Your task to perform on an android device: Open battery settings Image 0: 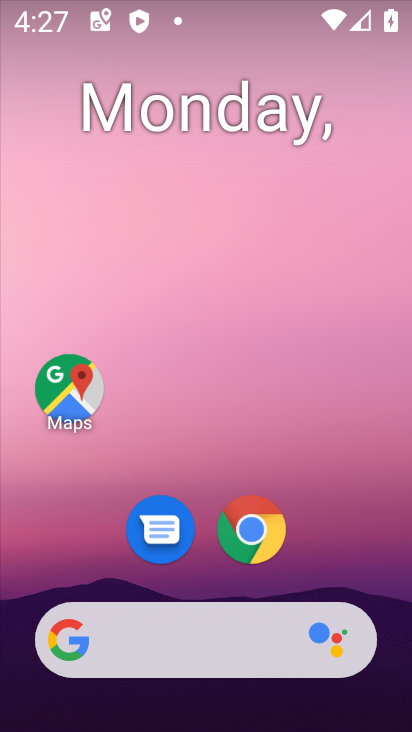
Step 0: drag from (213, 724) to (216, 208)
Your task to perform on an android device: Open battery settings Image 1: 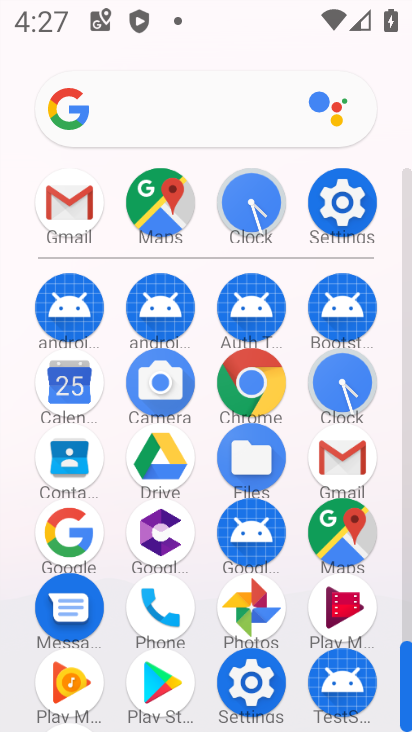
Step 1: click (345, 199)
Your task to perform on an android device: Open battery settings Image 2: 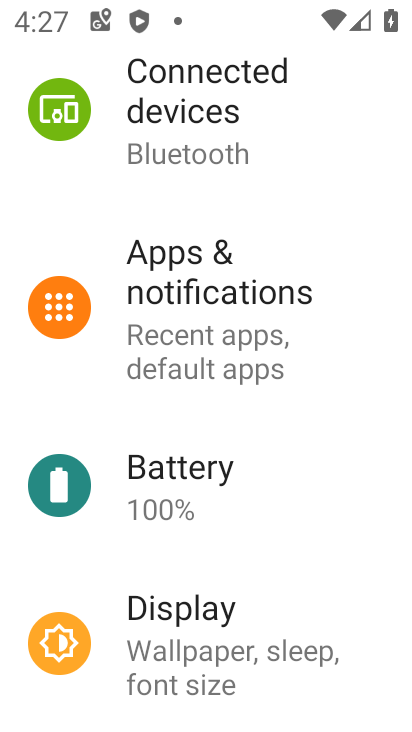
Step 2: click (180, 477)
Your task to perform on an android device: Open battery settings Image 3: 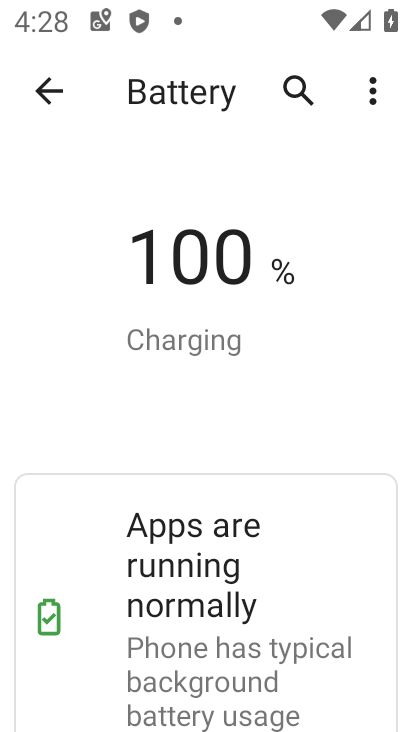
Step 3: task complete